Your task to perform on an android device: Go to display settings Image 0: 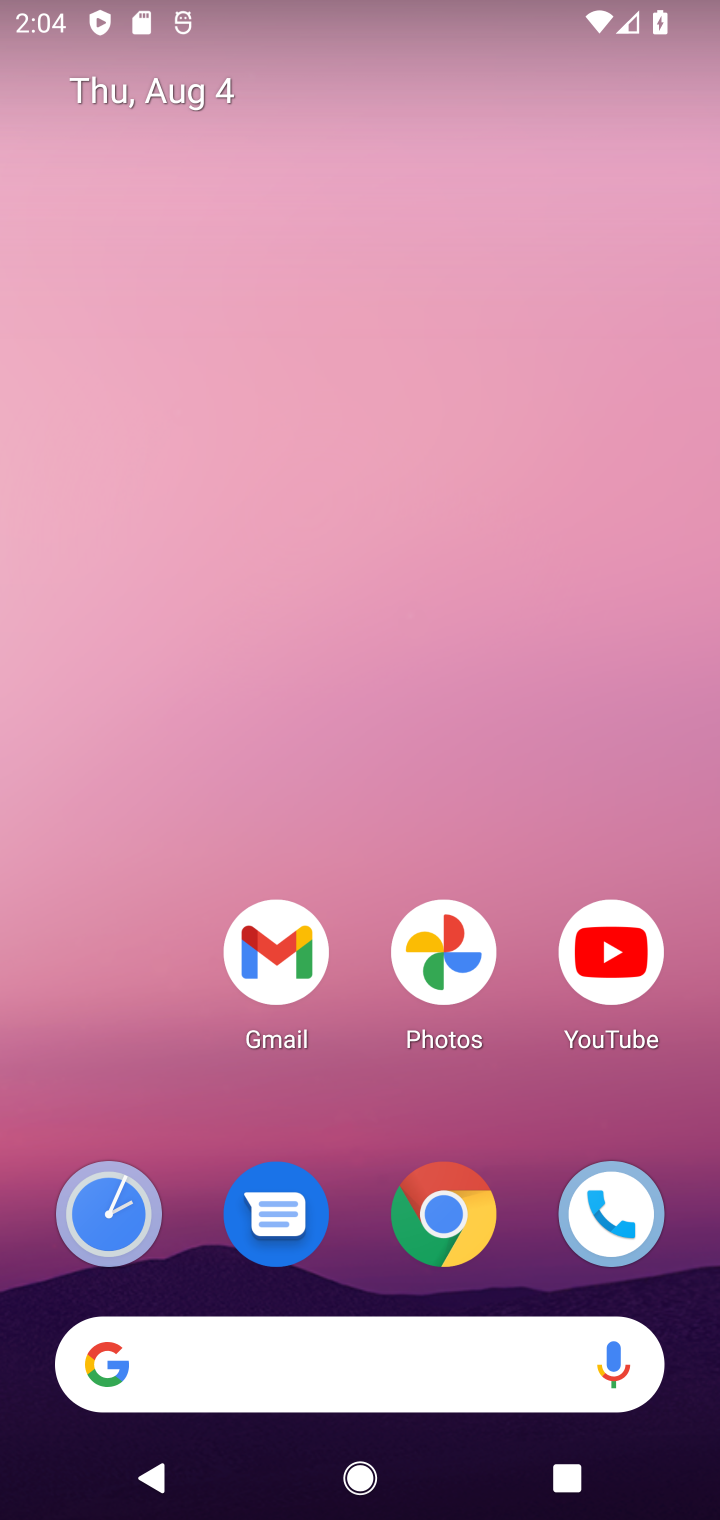
Step 0: drag from (566, 812) to (283, 9)
Your task to perform on an android device: Go to display settings Image 1: 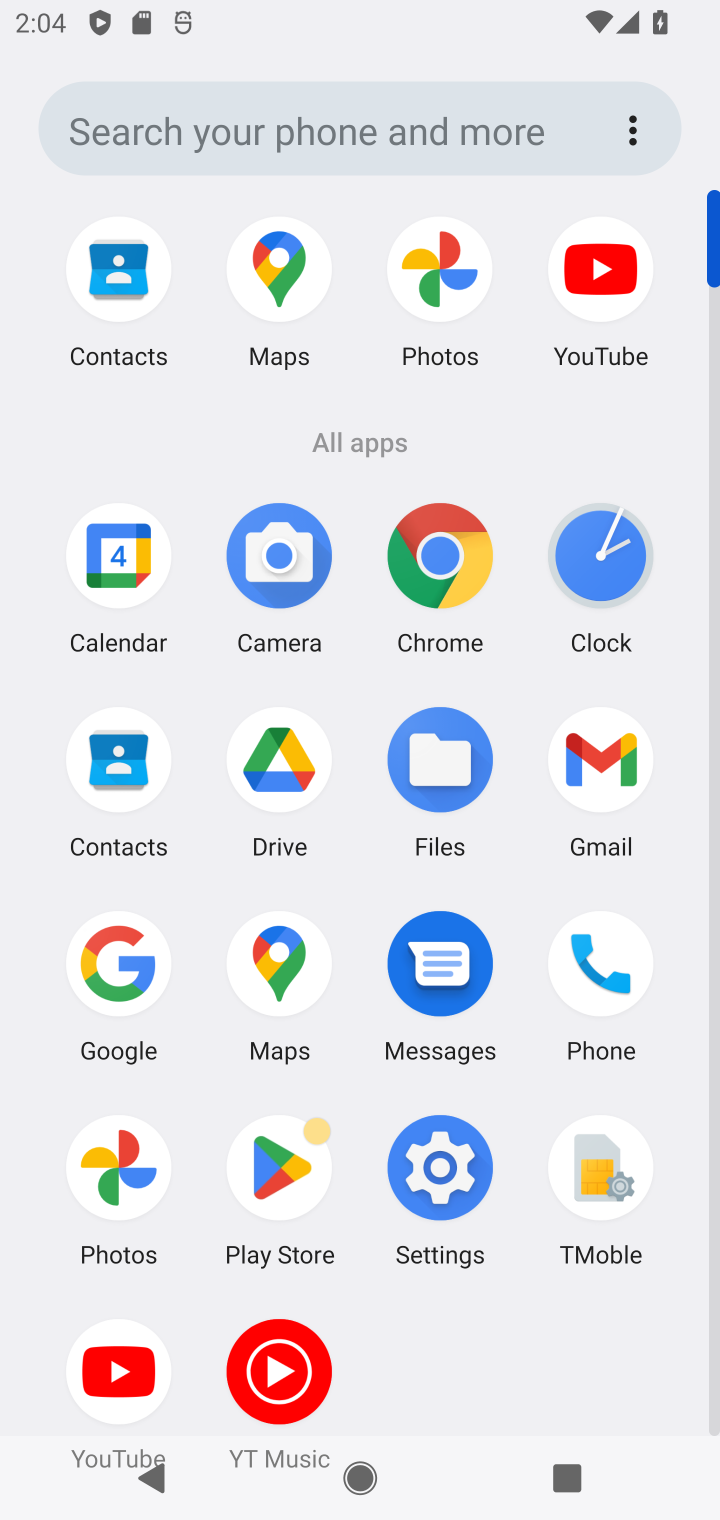
Step 1: click (449, 1178)
Your task to perform on an android device: Go to display settings Image 2: 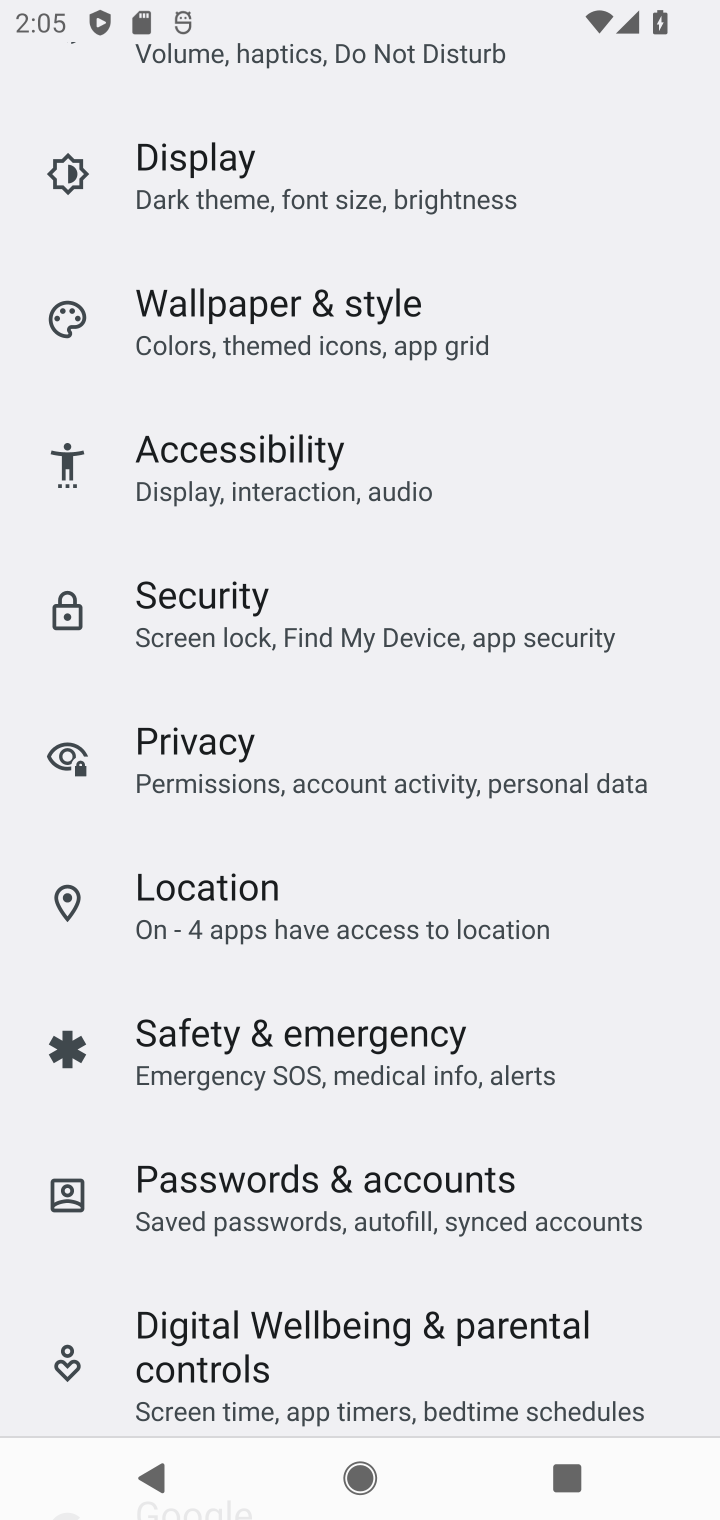
Step 2: click (312, 170)
Your task to perform on an android device: Go to display settings Image 3: 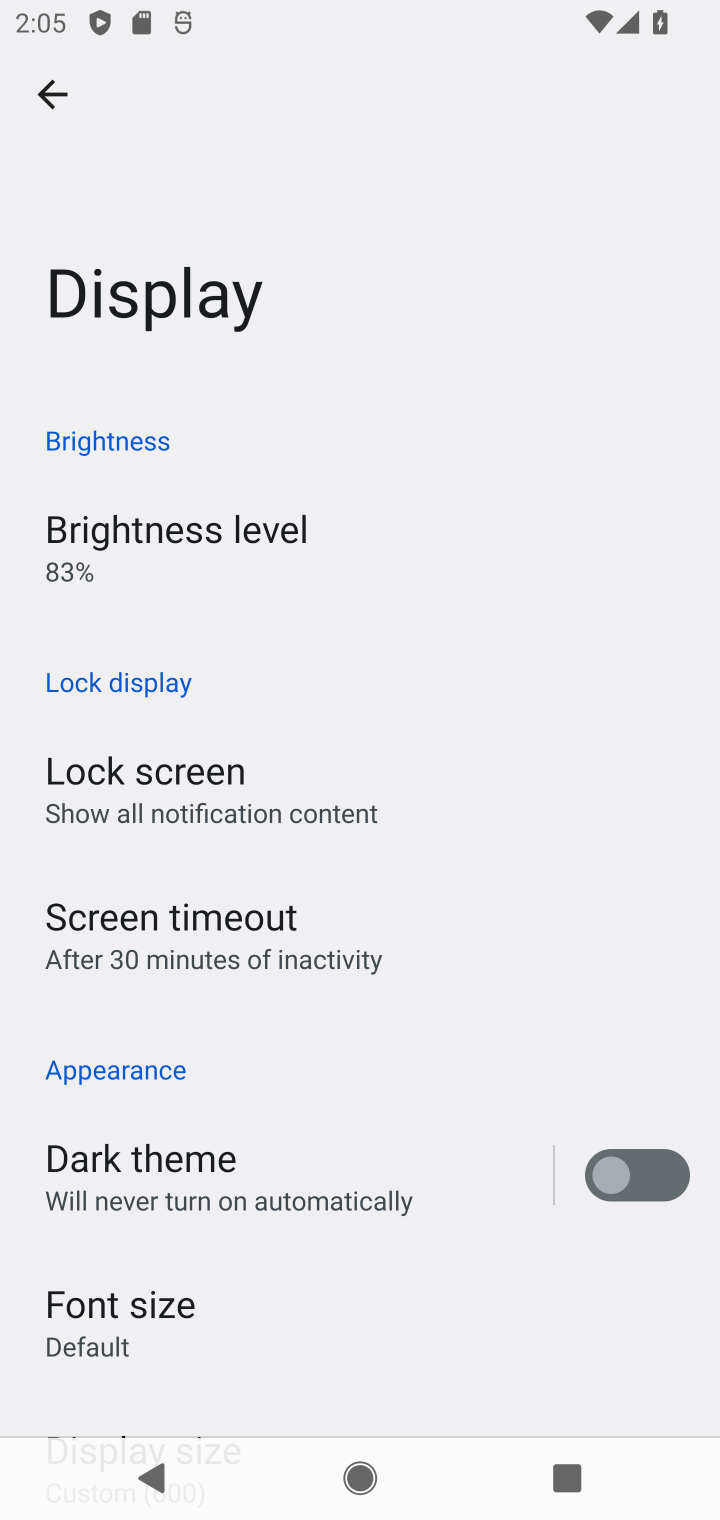
Step 3: task complete